Your task to perform on an android device: Do I have any events tomorrow? Image 0: 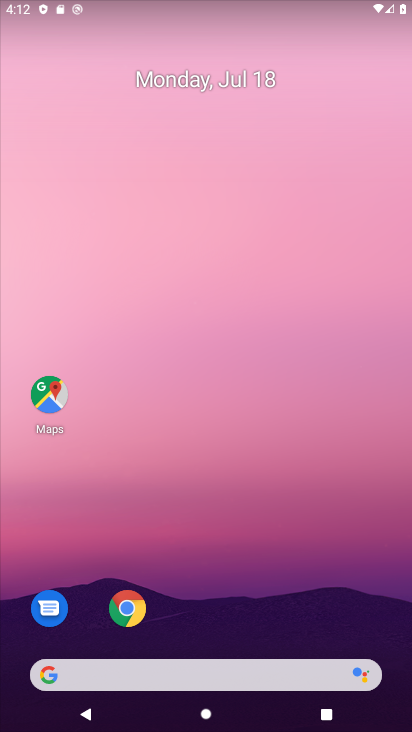
Step 0: drag from (301, 645) to (252, 62)
Your task to perform on an android device: Do I have any events tomorrow? Image 1: 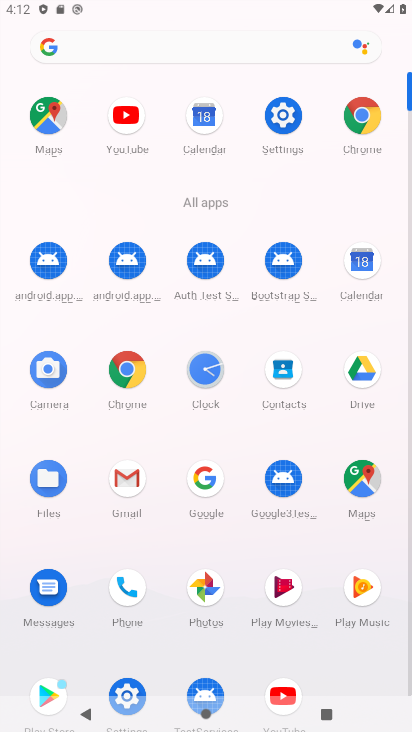
Step 1: click (349, 260)
Your task to perform on an android device: Do I have any events tomorrow? Image 2: 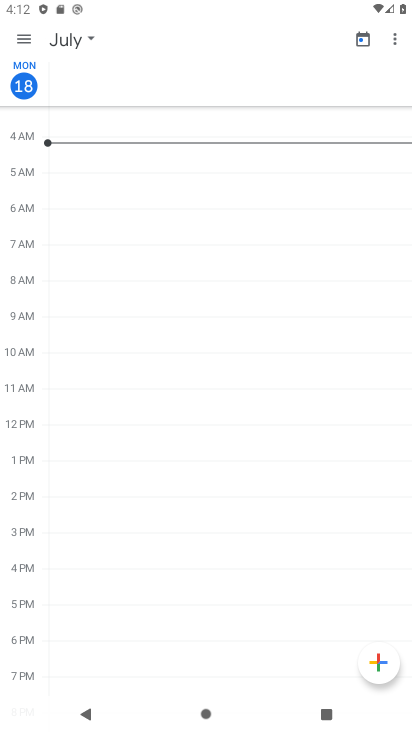
Step 2: click (60, 39)
Your task to perform on an android device: Do I have any events tomorrow? Image 3: 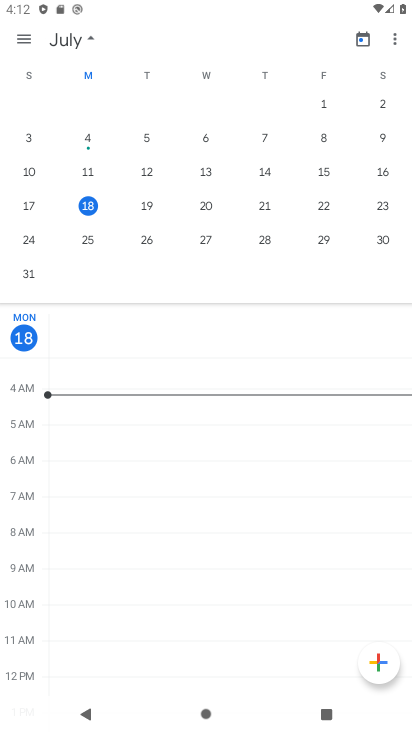
Step 3: click (150, 204)
Your task to perform on an android device: Do I have any events tomorrow? Image 4: 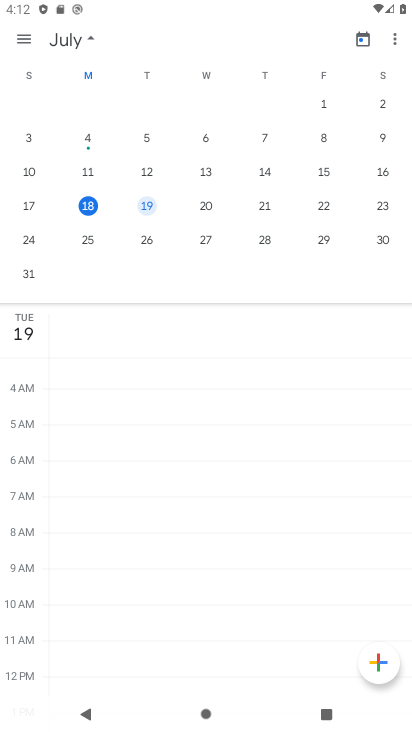
Step 4: click (139, 202)
Your task to perform on an android device: Do I have any events tomorrow? Image 5: 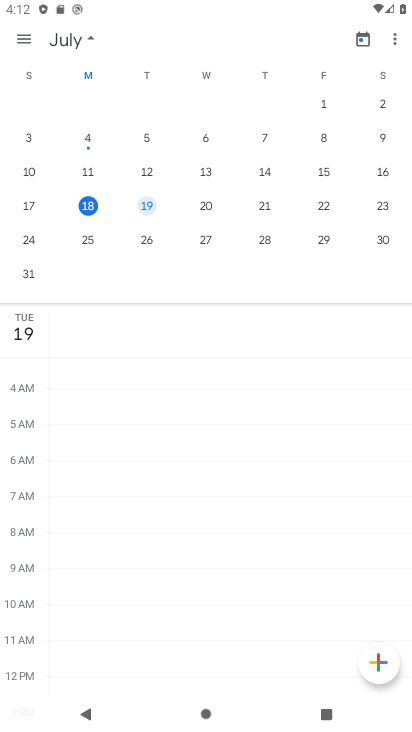
Step 5: click (145, 201)
Your task to perform on an android device: Do I have any events tomorrow? Image 6: 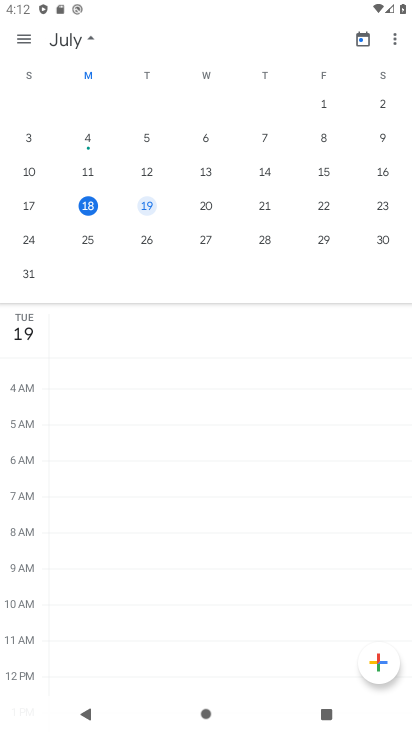
Step 6: task complete